Your task to perform on an android device: snooze an email in the gmail app Image 0: 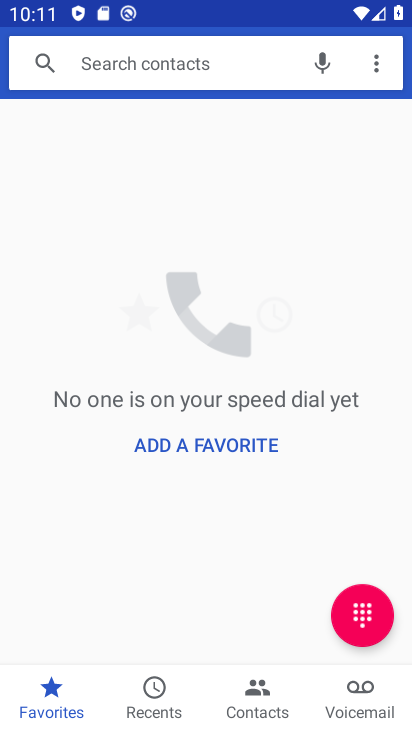
Step 0: press back button
Your task to perform on an android device: snooze an email in the gmail app Image 1: 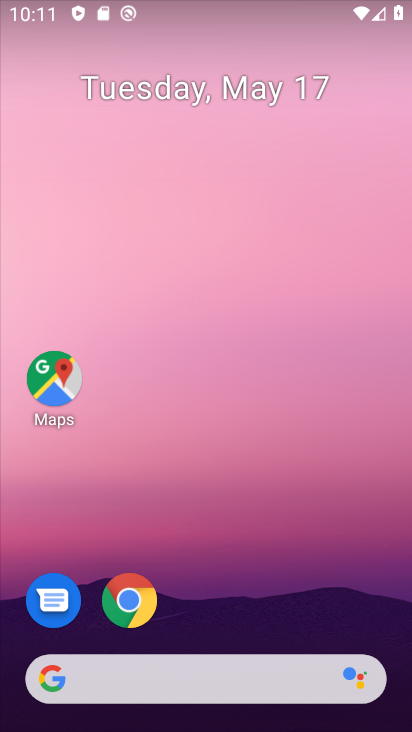
Step 1: drag from (204, 592) to (318, 12)
Your task to perform on an android device: snooze an email in the gmail app Image 2: 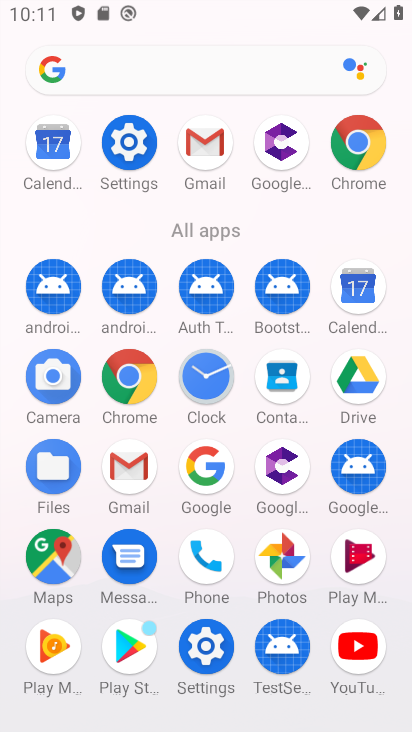
Step 2: click (206, 127)
Your task to perform on an android device: snooze an email in the gmail app Image 3: 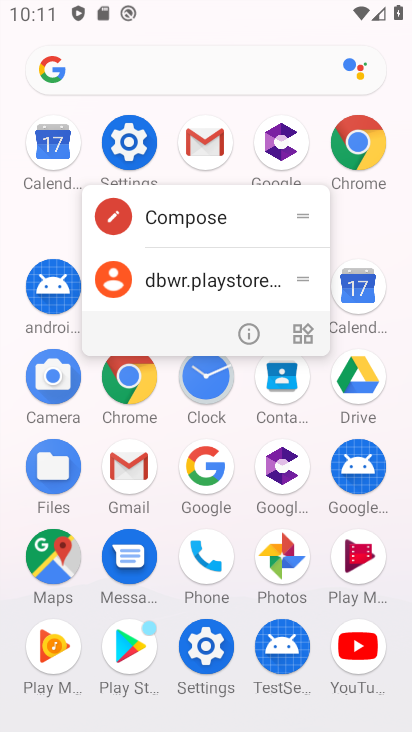
Step 3: click (207, 141)
Your task to perform on an android device: snooze an email in the gmail app Image 4: 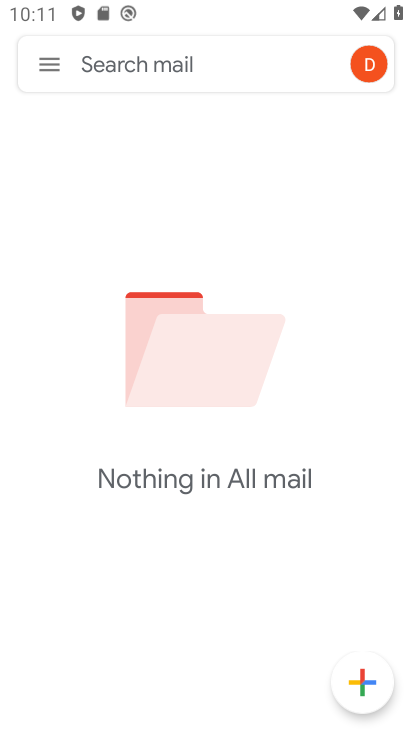
Step 4: click (47, 60)
Your task to perform on an android device: snooze an email in the gmail app Image 5: 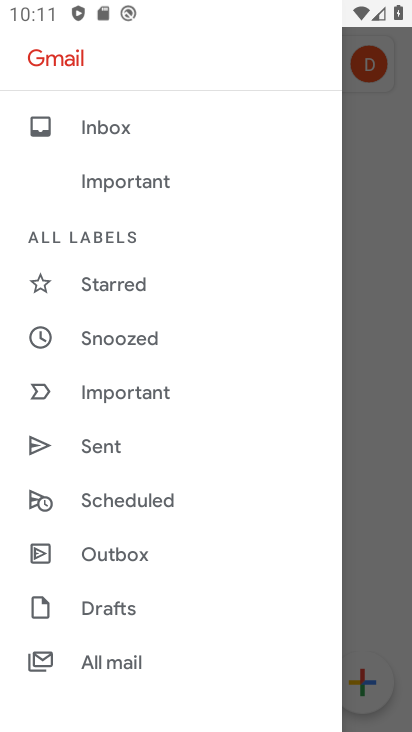
Step 5: click (374, 302)
Your task to perform on an android device: snooze an email in the gmail app Image 6: 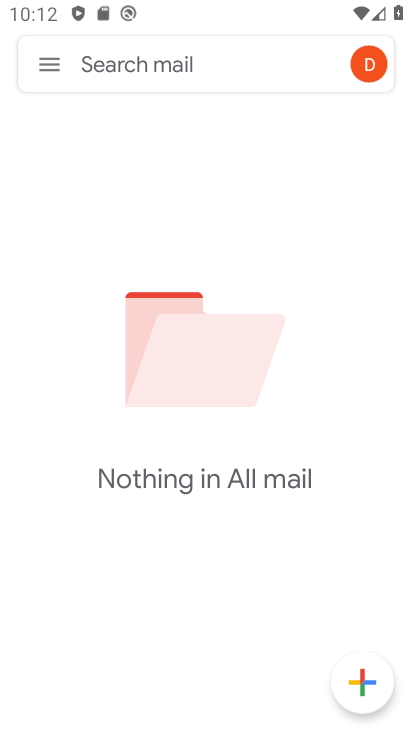
Step 6: task complete